Your task to perform on an android device: toggle airplane mode Image 0: 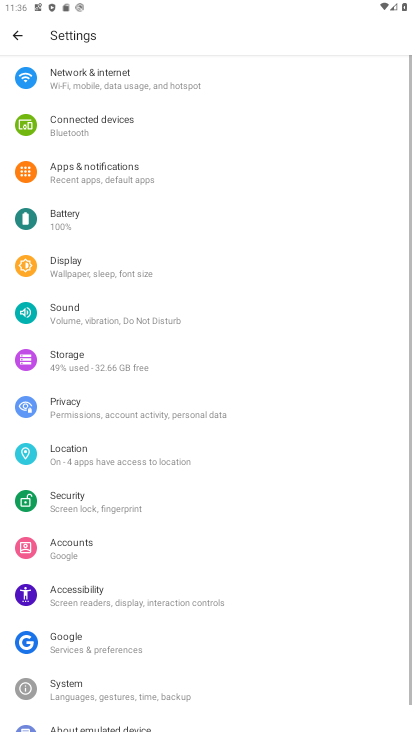
Step 0: click (131, 87)
Your task to perform on an android device: toggle airplane mode Image 1: 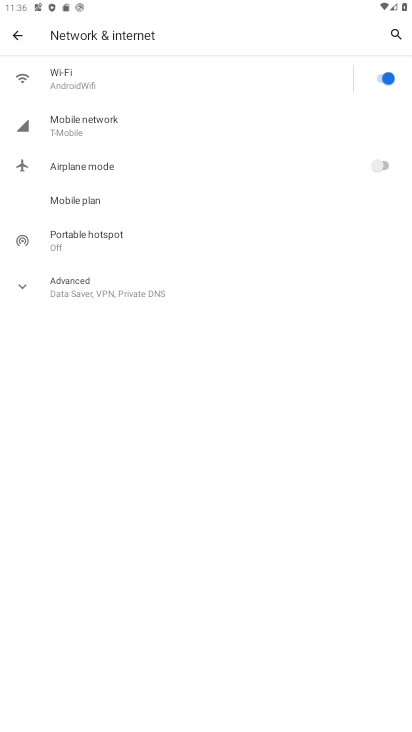
Step 1: task complete